Your task to perform on an android device: Search for dell xps on target, select the first entry, add it to the cart, then select checkout. Image 0: 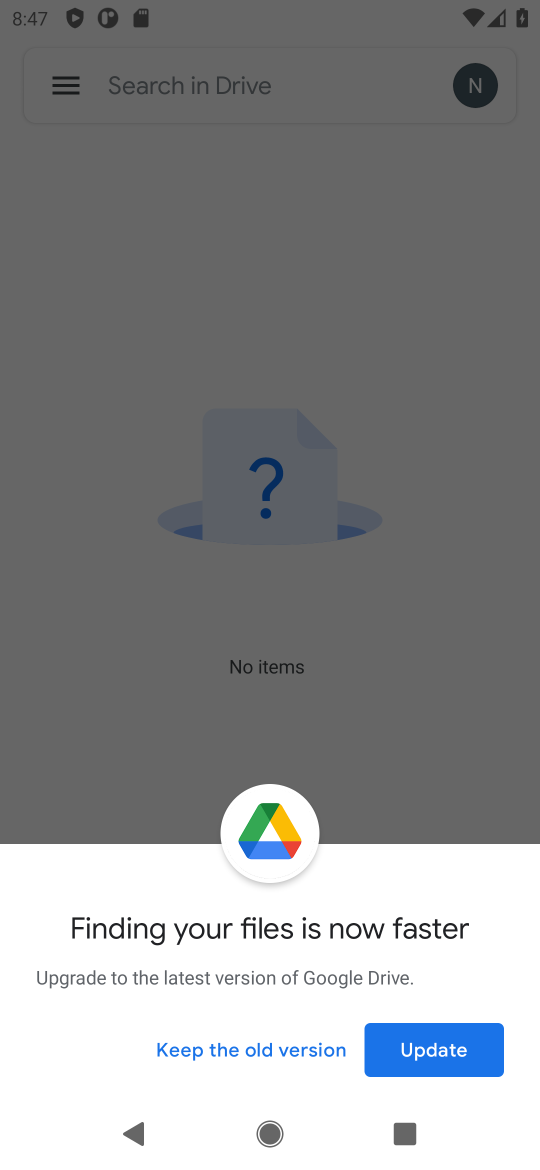
Step 0: press home button
Your task to perform on an android device: Search for dell xps on target, select the first entry, add it to the cart, then select checkout. Image 1: 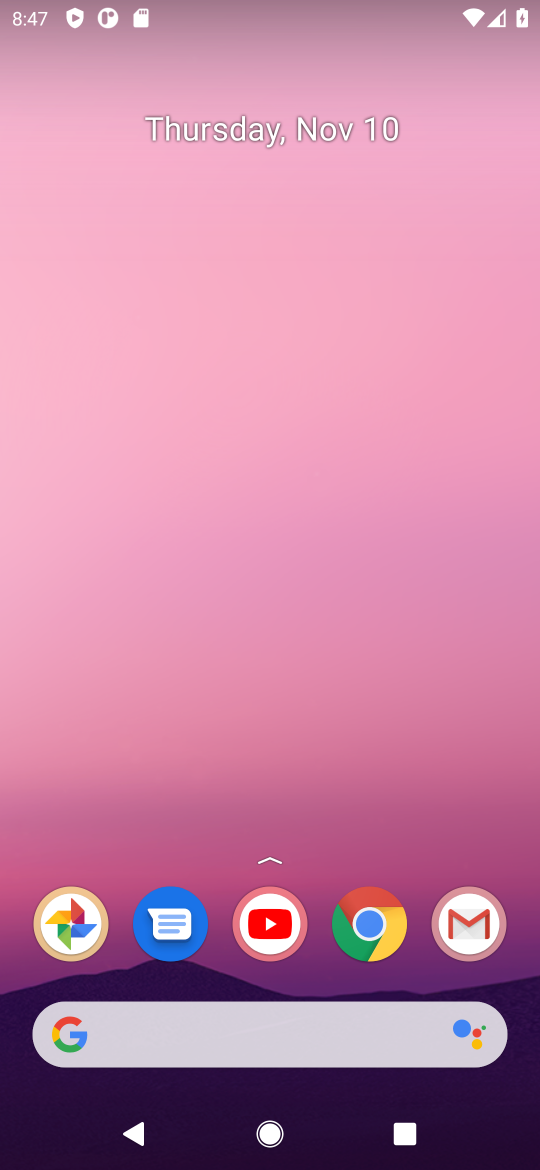
Step 1: click (383, 925)
Your task to perform on an android device: Search for dell xps on target, select the first entry, add it to the cart, then select checkout. Image 2: 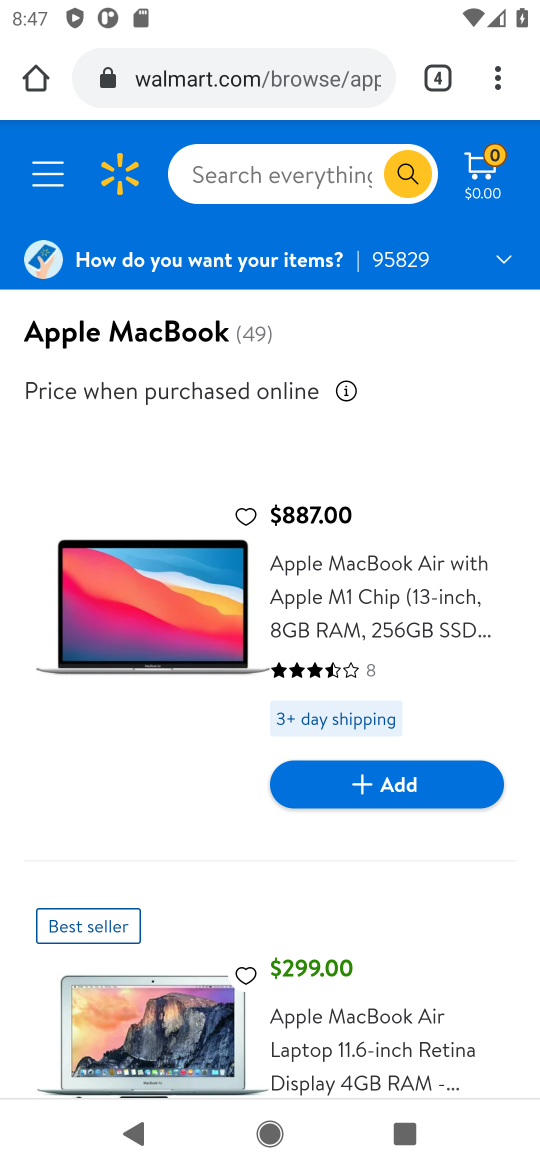
Step 2: click (296, 71)
Your task to perform on an android device: Search for dell xps on target, select the first entry, add it to the cart, then select checkout. Image 3: 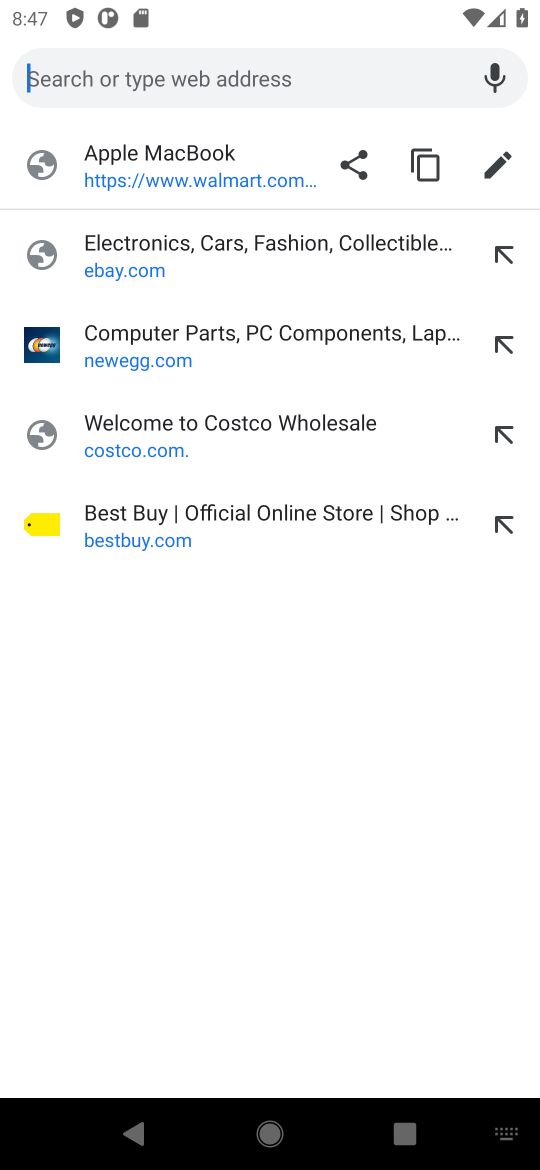
Step 3: type "target.com"
Your task to perform on an android device: Search for dell xps on target, select the first entry, add it to the cart, then select checkout. Image 4: 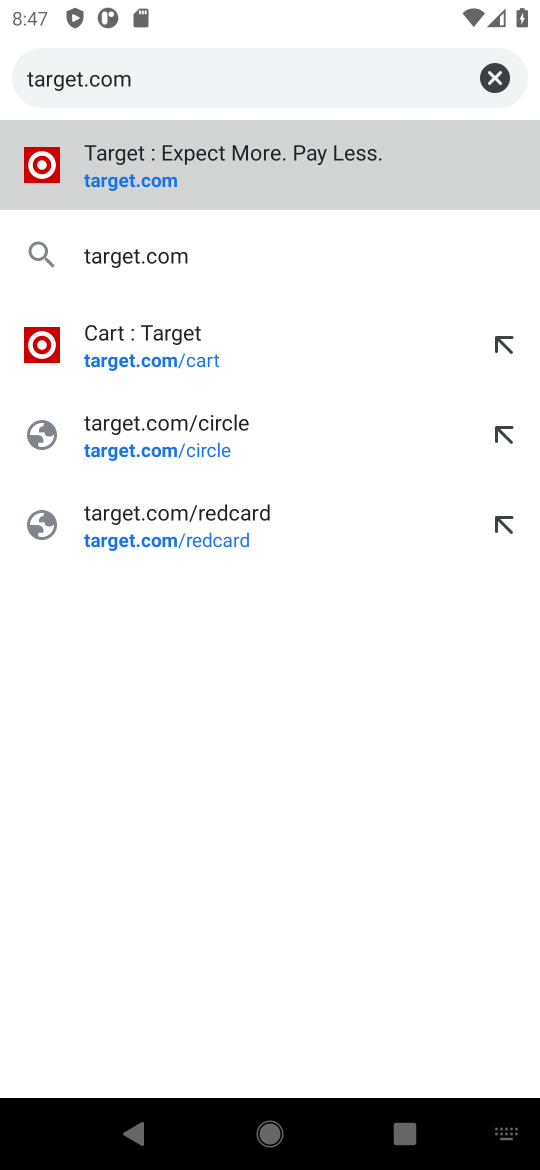
Step 4: click (142, 194)
Your task to perform on an android device: Search for dell xps on target, select the first entry, add it to the cart, then select checkout. Image 5: 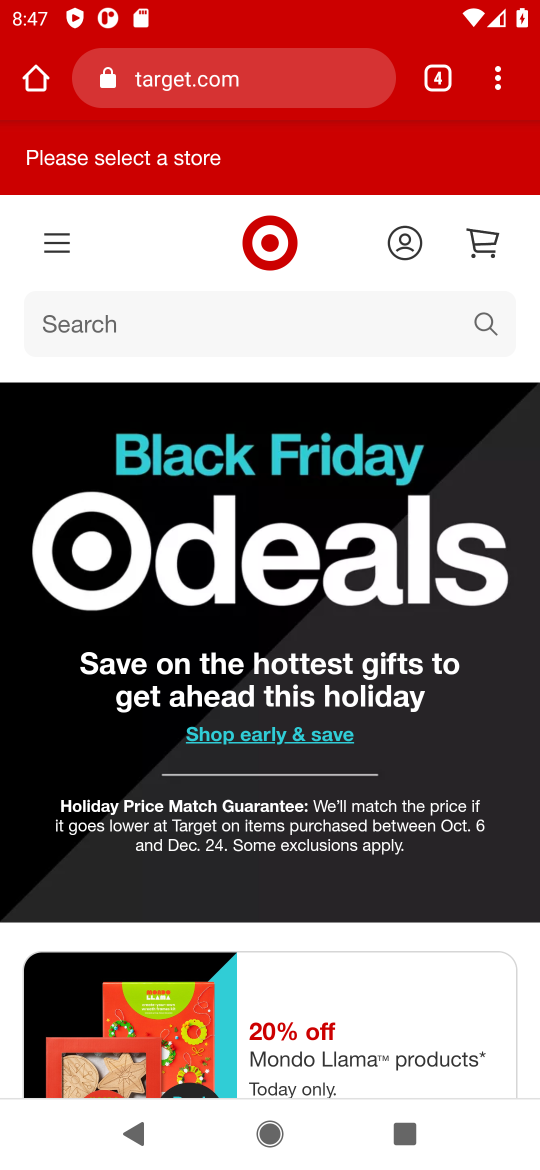
Step 5: click (483, 332)
Your task to perform on an android device: Search for dell xps on target, select the first entry, add it to the cart, then select checkout. Image 6: 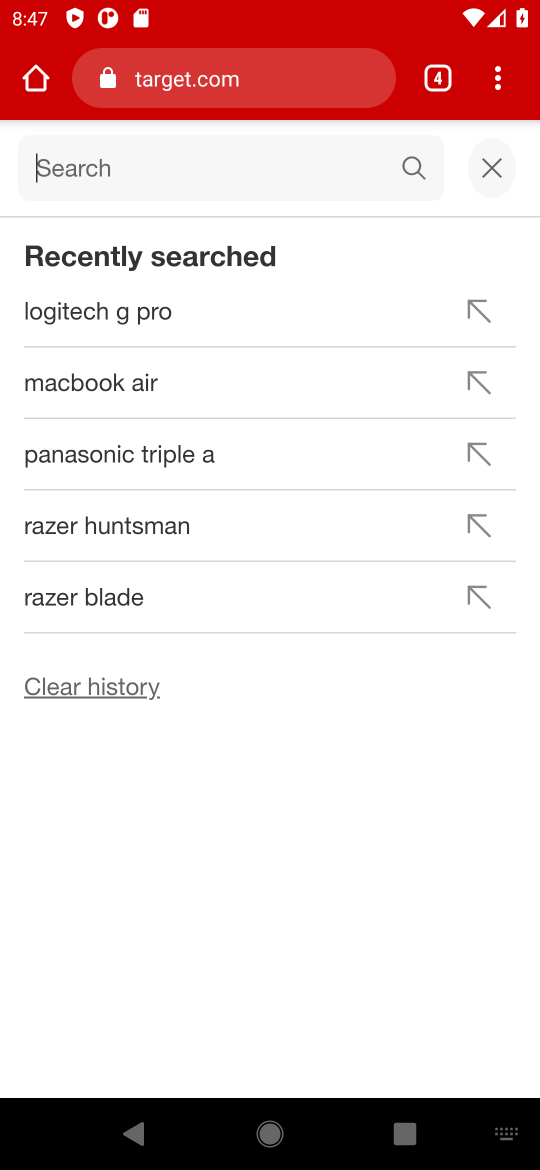
Step 6: type "dell xps"
Your task to perform on an android device: Search for dell xps on target, select the first entry, add it to the cart, then select checkout. Image 7: 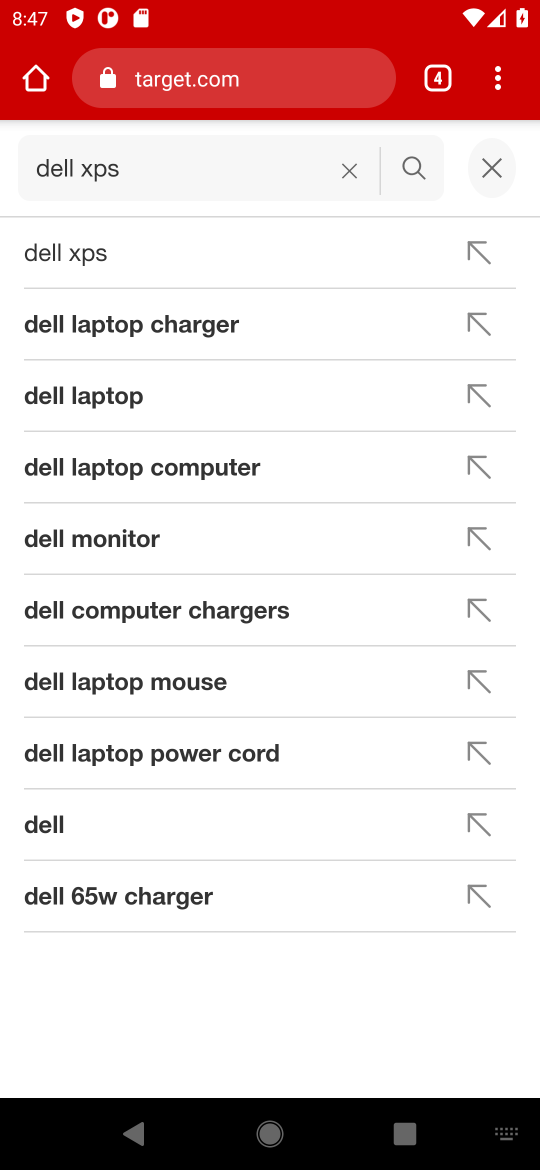
Step 7: click (61, 254)
Your task to perform on an android device: Search for dell xps on target, select the first entry, add it to the cart, then select checkout. Image 8: 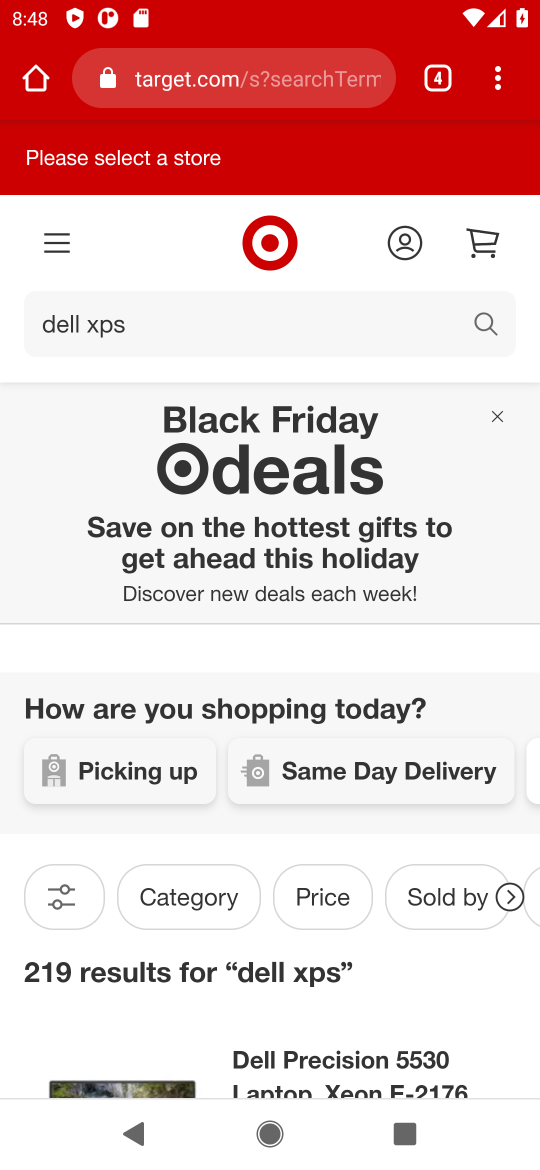
Step 8: task complete